Your task to perform on an android device: delete the emails in spam in the gmail app Image 0: 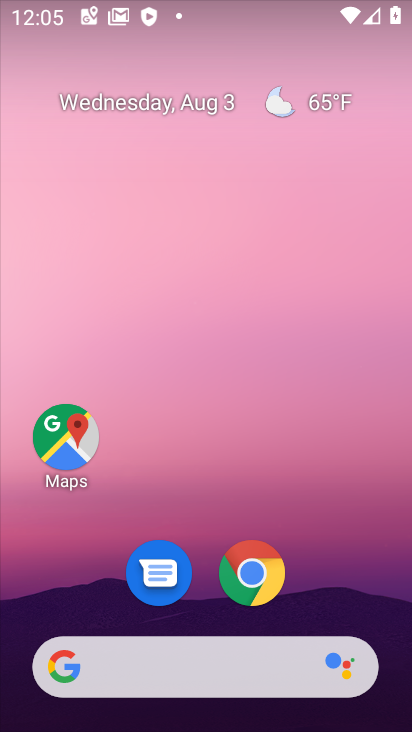
Step 0: drag from (210, 613) to (306, 223)
Your task to perform on an android device: delete the emails in spam in the gmail app Image 1: 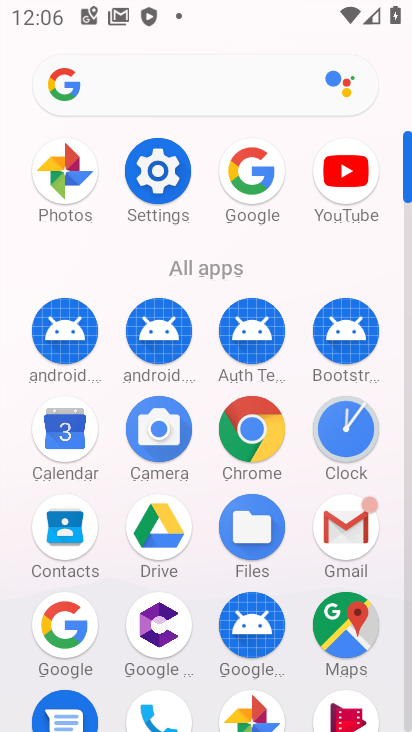
Step 1: click (341, 515)
Your task to perform on an android device: delete the emails in spam in the gmail app Image 2: 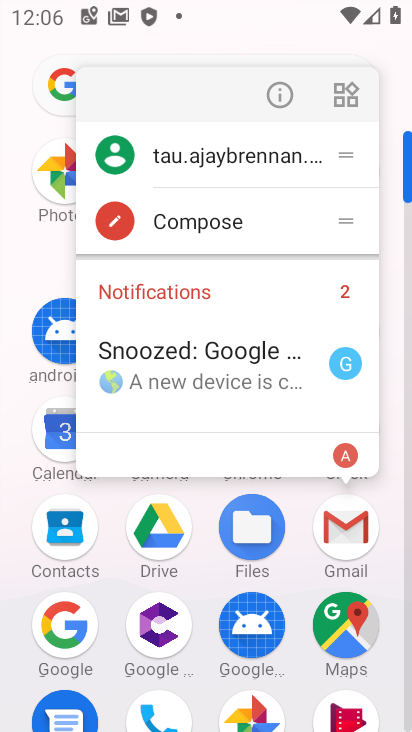
Step 2: click (276, 85)
Your task to perform on an android device: delete the emails in spam in the gmail app Image 3: 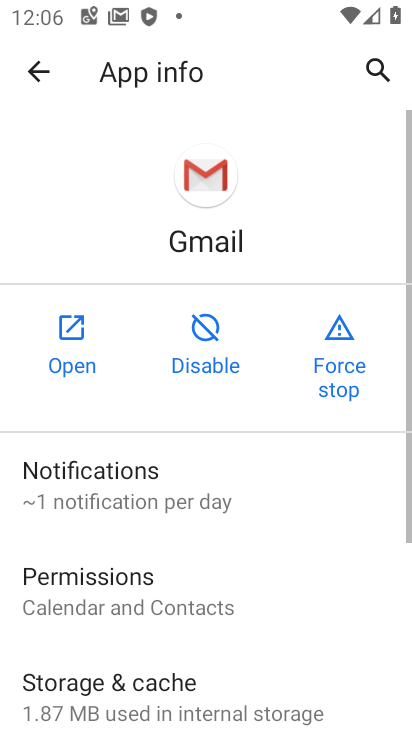
Step 3: click (79, 339)
Your task to perform on an android device: delete the emails in spam in the gmail app Image 4: 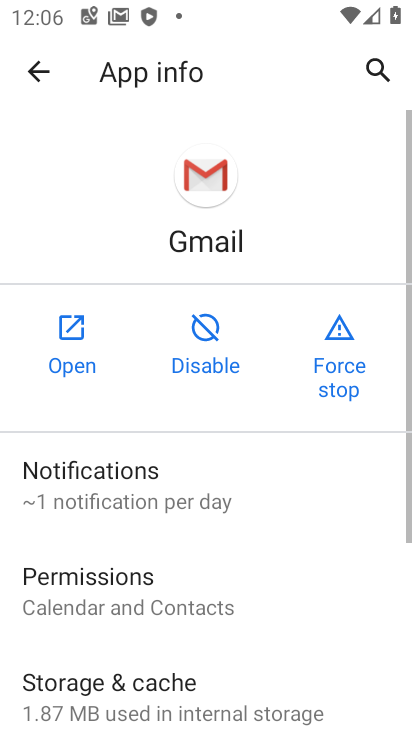
Step 4: click (79, 339)
Your task to perform on an android device: delete the emails in spam in the gmail app Image 5: 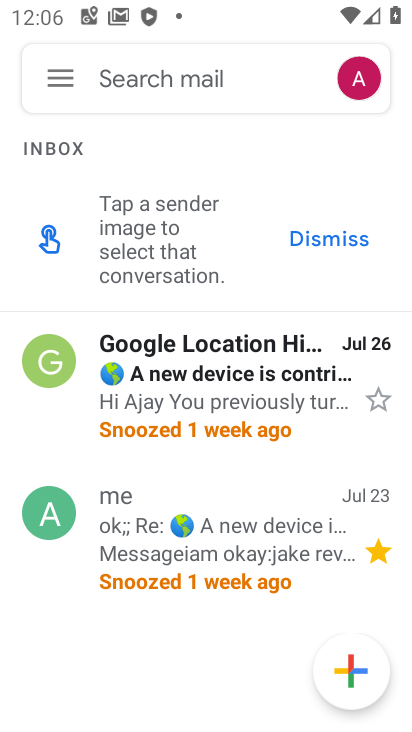
Step 5: drag from (210, 548) to (234, 223)
Your task to perform on an android device: delete the emails in spam in the gmail app Image 6: 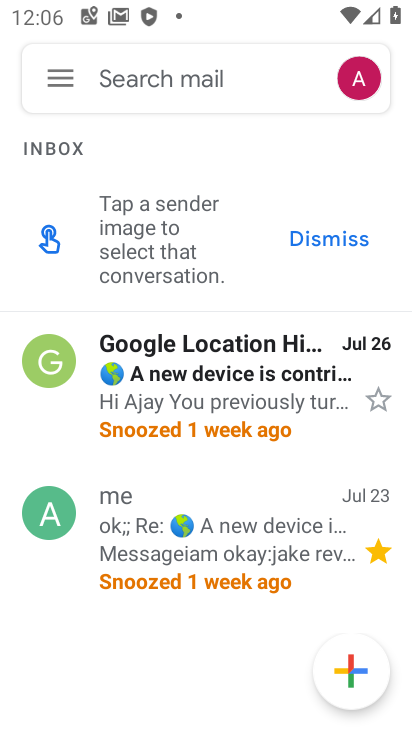
Step 6: click (69, 77)
Your task to perform on an android device: delete the emails in spam in the gmail app Image 7: 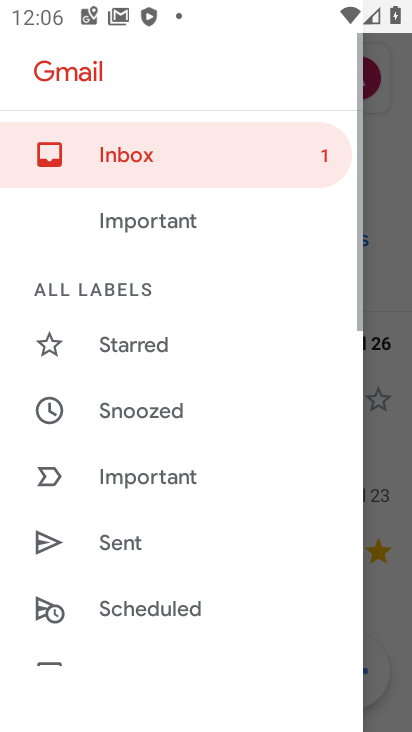
Step 7: drag from (181, 560) to (206, 83)
Your task to perform on an android device: delete the emails in spam in the gmail app Image 8: 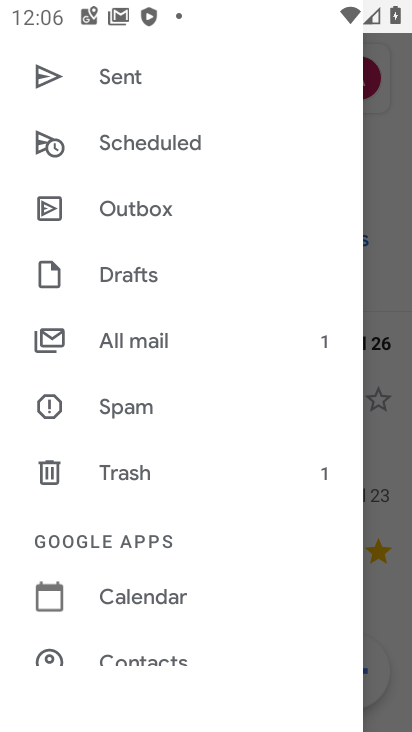
Step 8: drag from (150, 533) to (229, 0)
Your task to perform on an android device: delete the emails in spam in the gmail app Image 9: 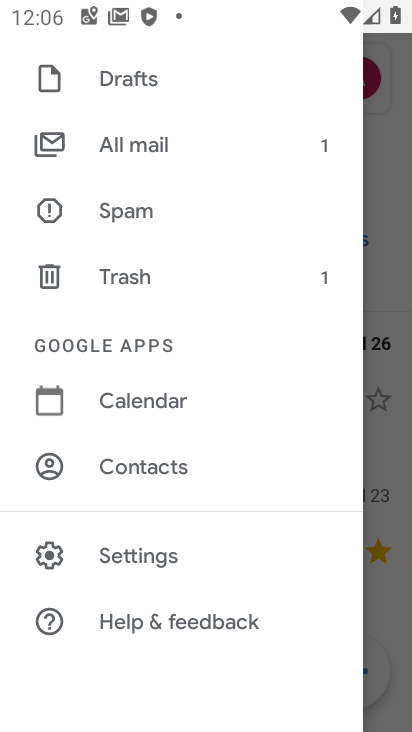
Step 9: click (125, 205)
Your task to perform on an android device: delete the emails in spam in the gmail app Image 10: 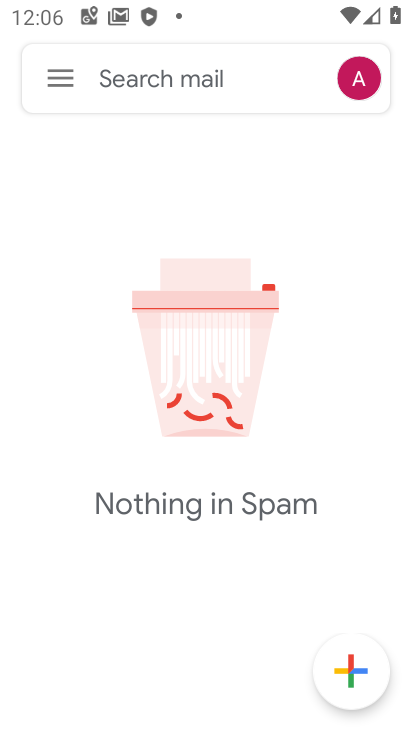
Step 10: task complete